Your task to perform on an android device: turn off notifications in google photos Image 0: 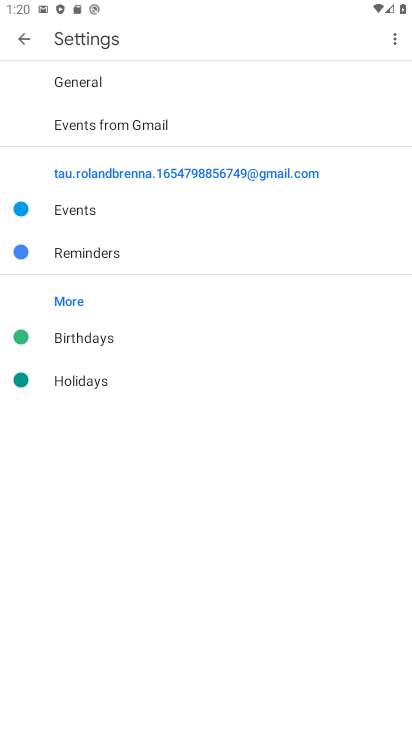
Step 0: press home button
Your task to perform on an android device: turn off notifications in google photos Image 1: 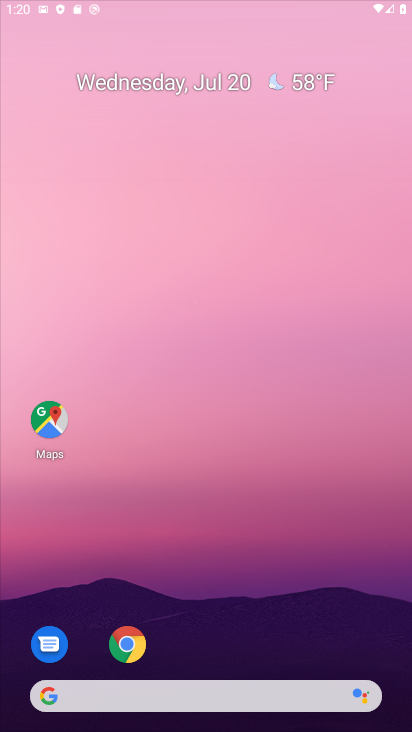
Step 1: drag from (201, 597) to (197, 111)
Your task to perform on an android device: turn off notifications in google photos Image 2: 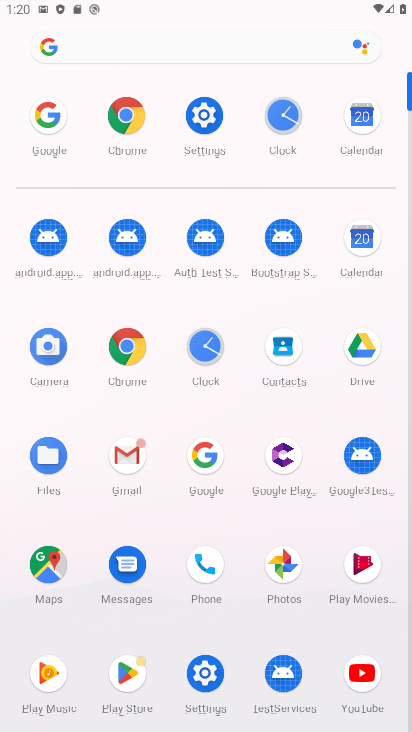
Step 2: click (282, 558)
Your task to perform on an android device: turn off notifications in google photos Image 3: 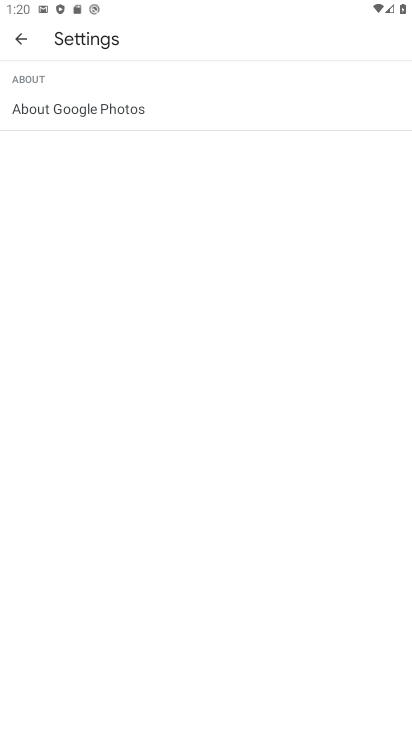
Step 3: press back button
Your task to perform on an android device: turn off notifications in google photos Image 4: 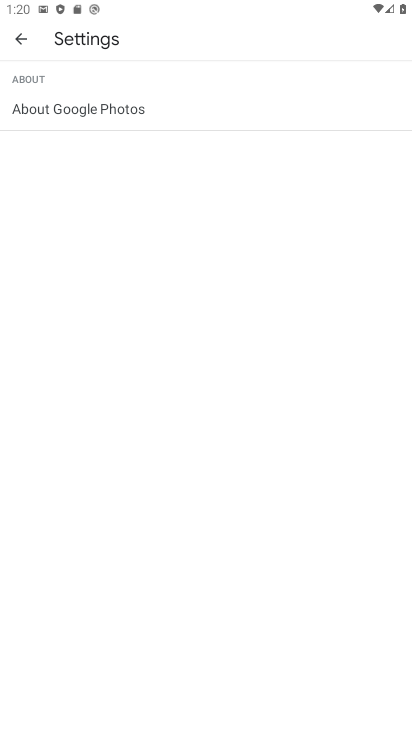
Step 4: press back button
Your task to perform on an android device: turn off notifications in google photos Image 5: 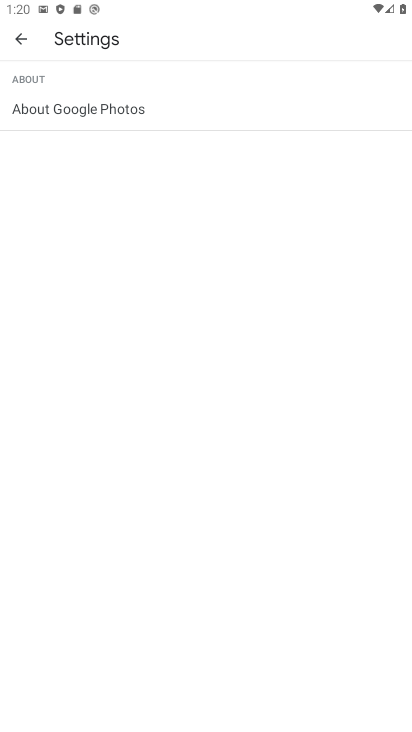
Step 5: press back button
Your task to perform on an android device: turn off notifications in google photos Image 6: 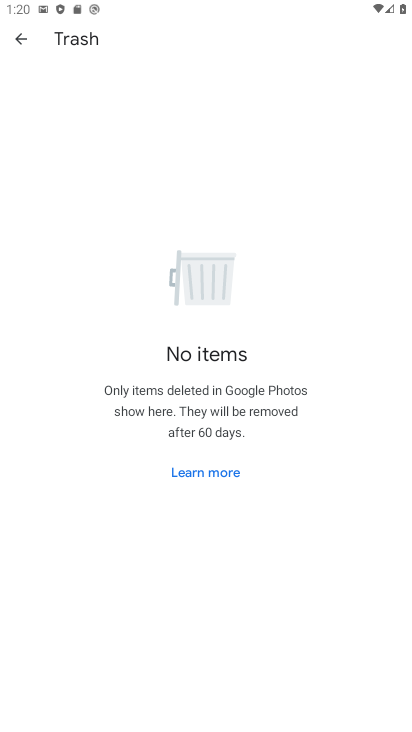
Step 6: press back button
Your task to perform on an android device: turn off notifications in google photos Image 7: 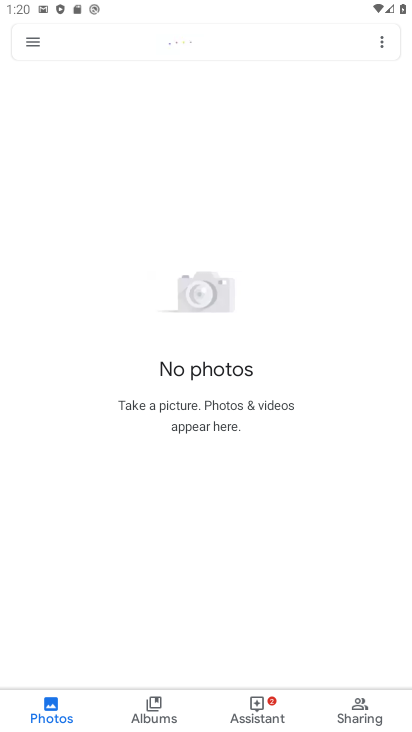
Step 7: click (27, 38)
Your task to perform on an android device: turn off notifications in google photos Image 8: 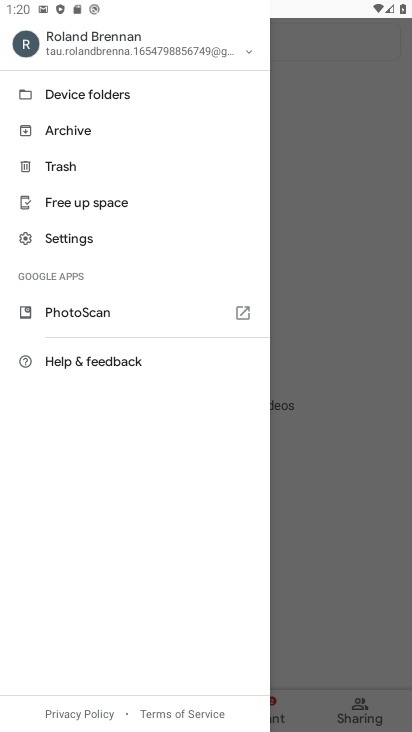
Step 8: click (69, 238)
Your task to perform on an android device: turn off notifications in google photos Image 9: 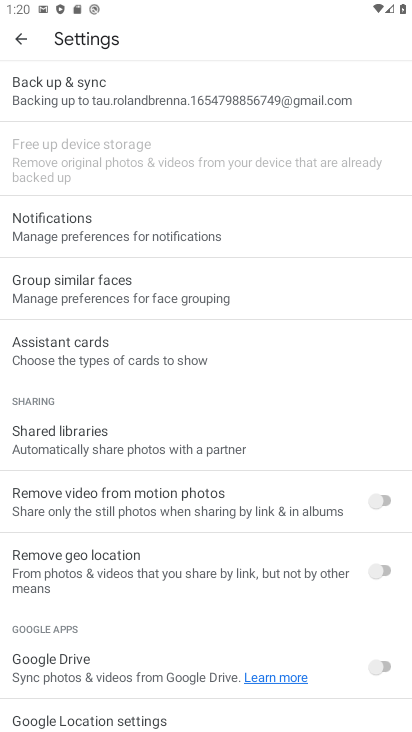
Step 9: click (138, 224)
Your task to perform on an android device: turn off notifications in google photos Image 10: 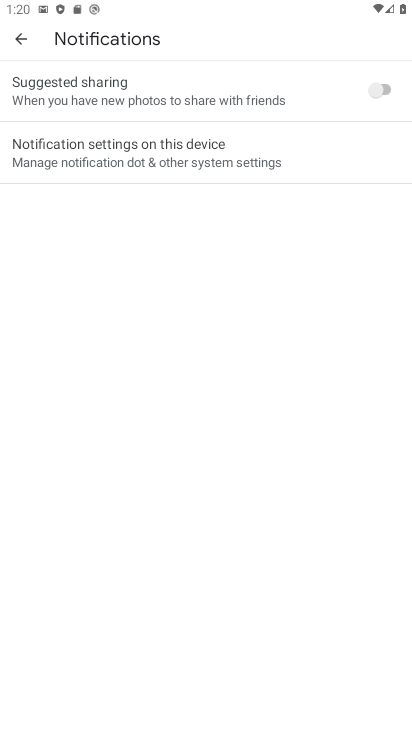
Step 10: click (200, 170)
Your task to perform on an android device: turn off notifications in google photos Image 11: 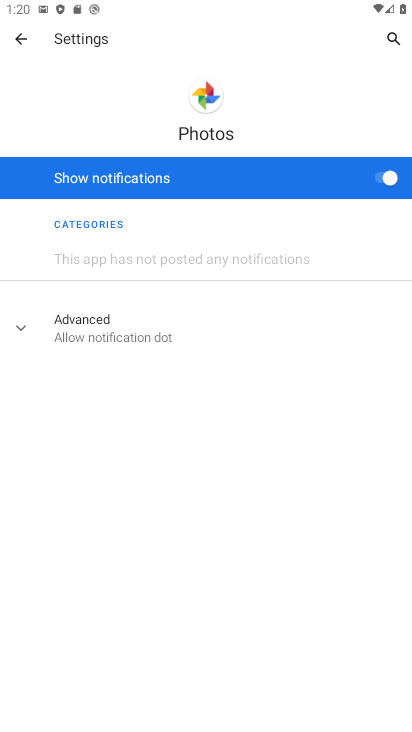
Step 11: click (377, 172)
Your task to perform on an android device: turn off notifications in google photos Image 12: 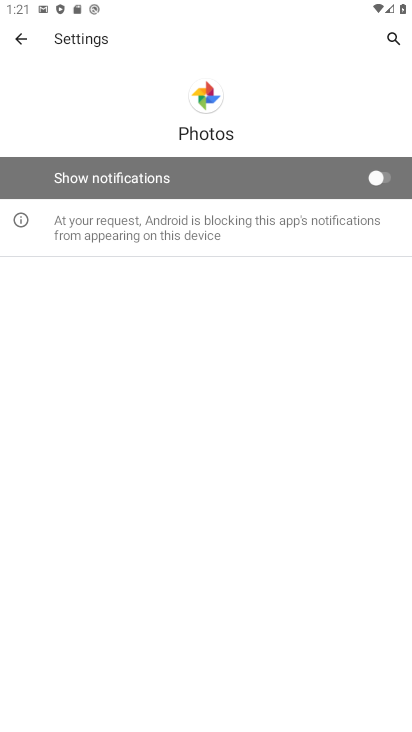
Step 12: task complete